Your task to perform on an android device: Show me the alarms in the clock app Image 0: 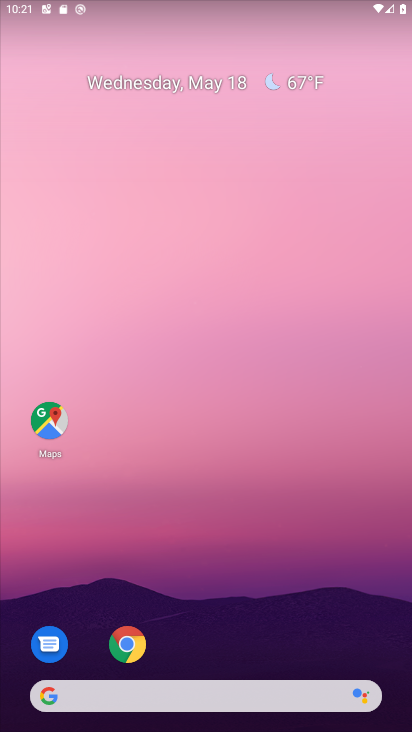
Step 0: drag from (267, 616) to (206, 137)
Your task to perform on an android device: Show me the alarms in the clock app Image 1: 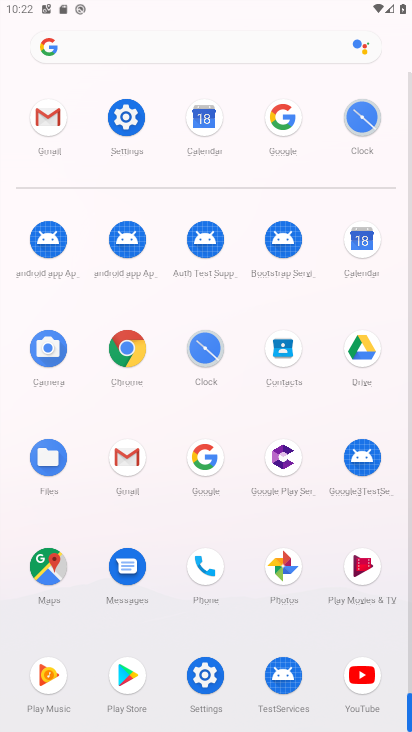
Step 1: click (361, 116)
Your task to perform on an android device: Show me the alarms in the clock app Image 2: 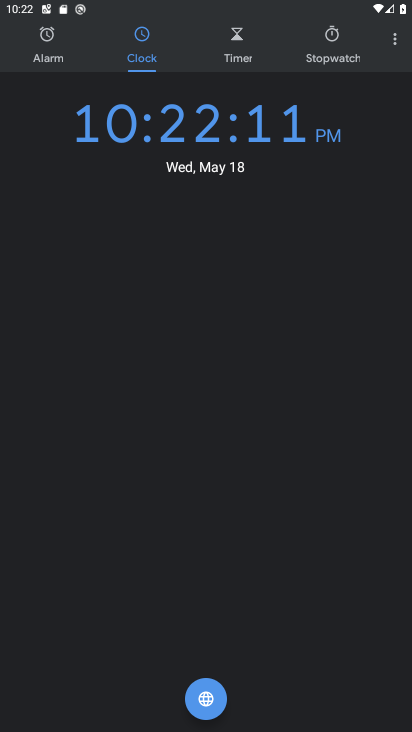
Step 2: click (53, 38)
Your task to perform on an android device: Show me the alarms in the clock app Image 3: 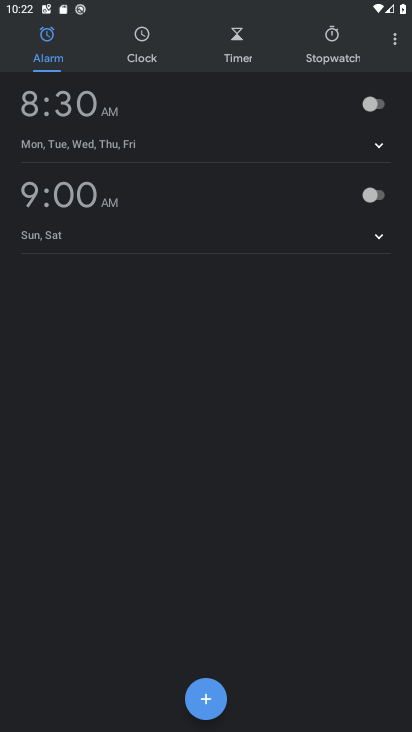
Step 3: task complete